Your task to perform on an android device: install app "Google Play services" Image 0: 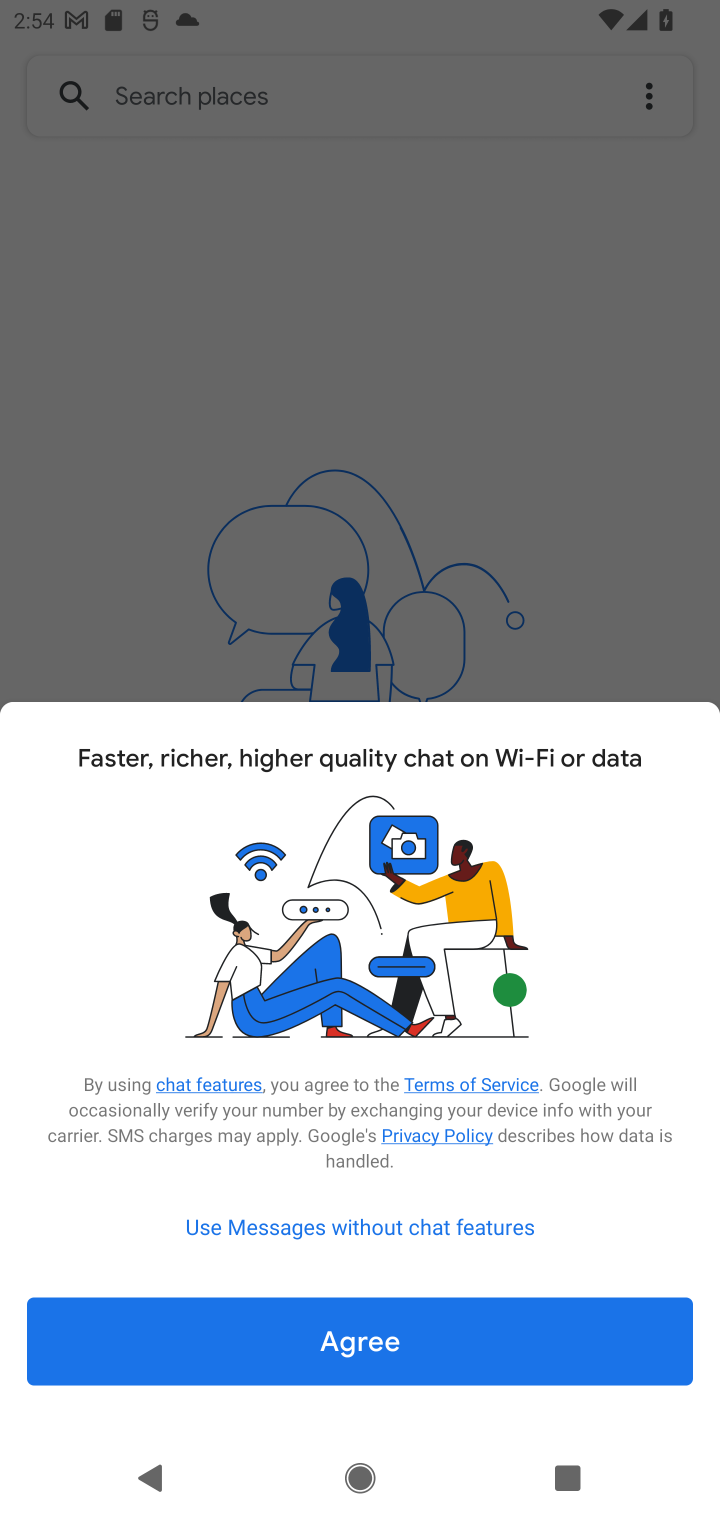
Step 0: press home button
Your task to perform on an android device: install app "Google Play services" Image 1: 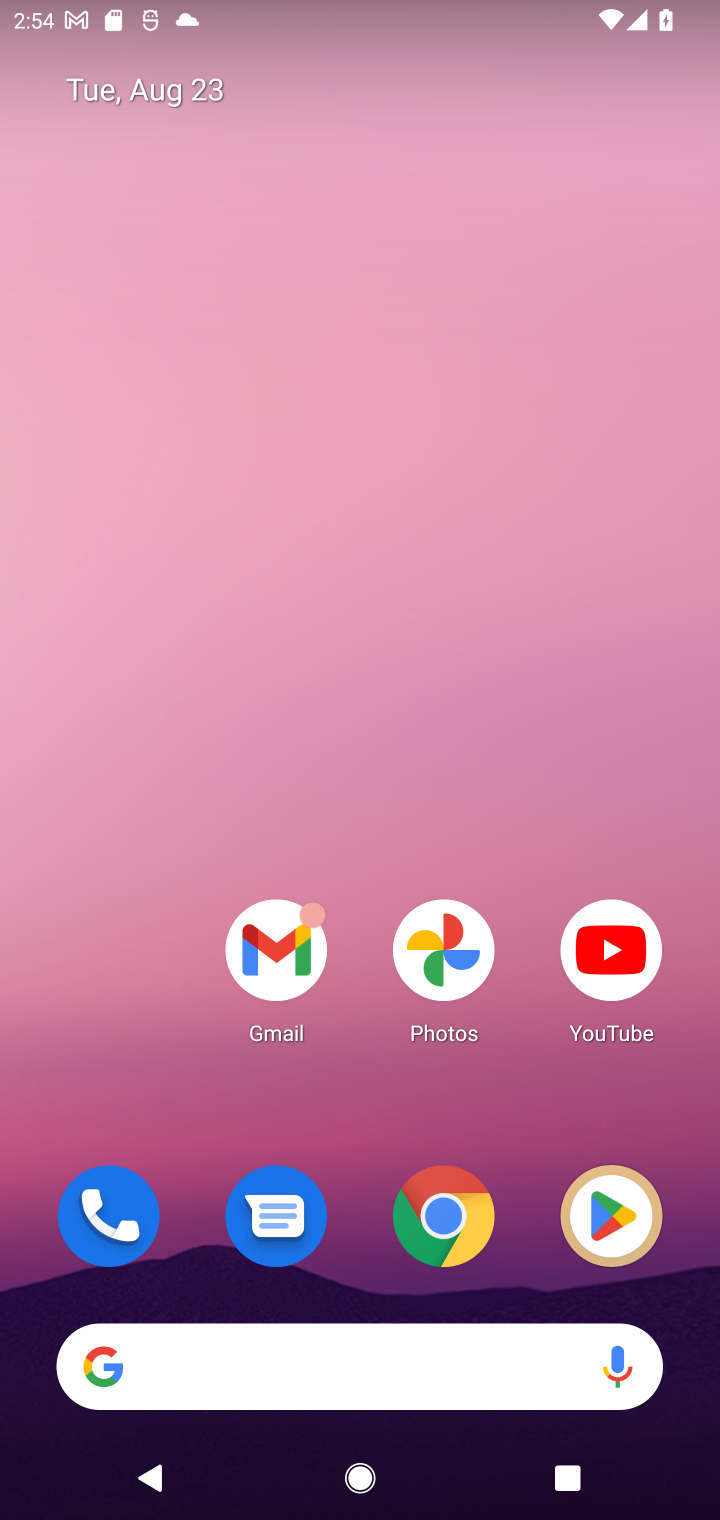
Step 1: drag from (298, 1305) to (342, 253)
Your task to perform on an android device: install app "Google Play services" Image 2: 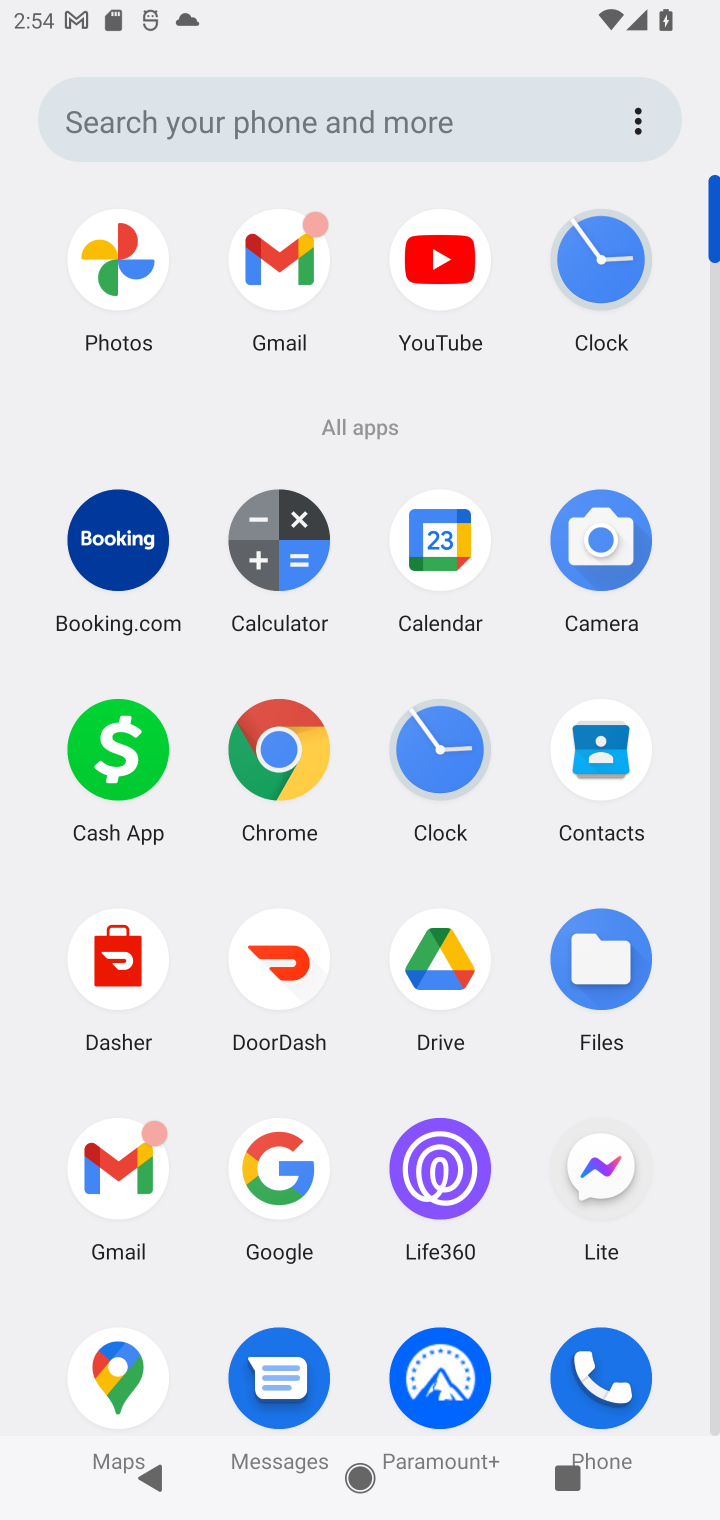
Step 2: drag from (309, 1203) to (419, 385)
Your task to perform on an android device: install app "Google Play services" Image 3: 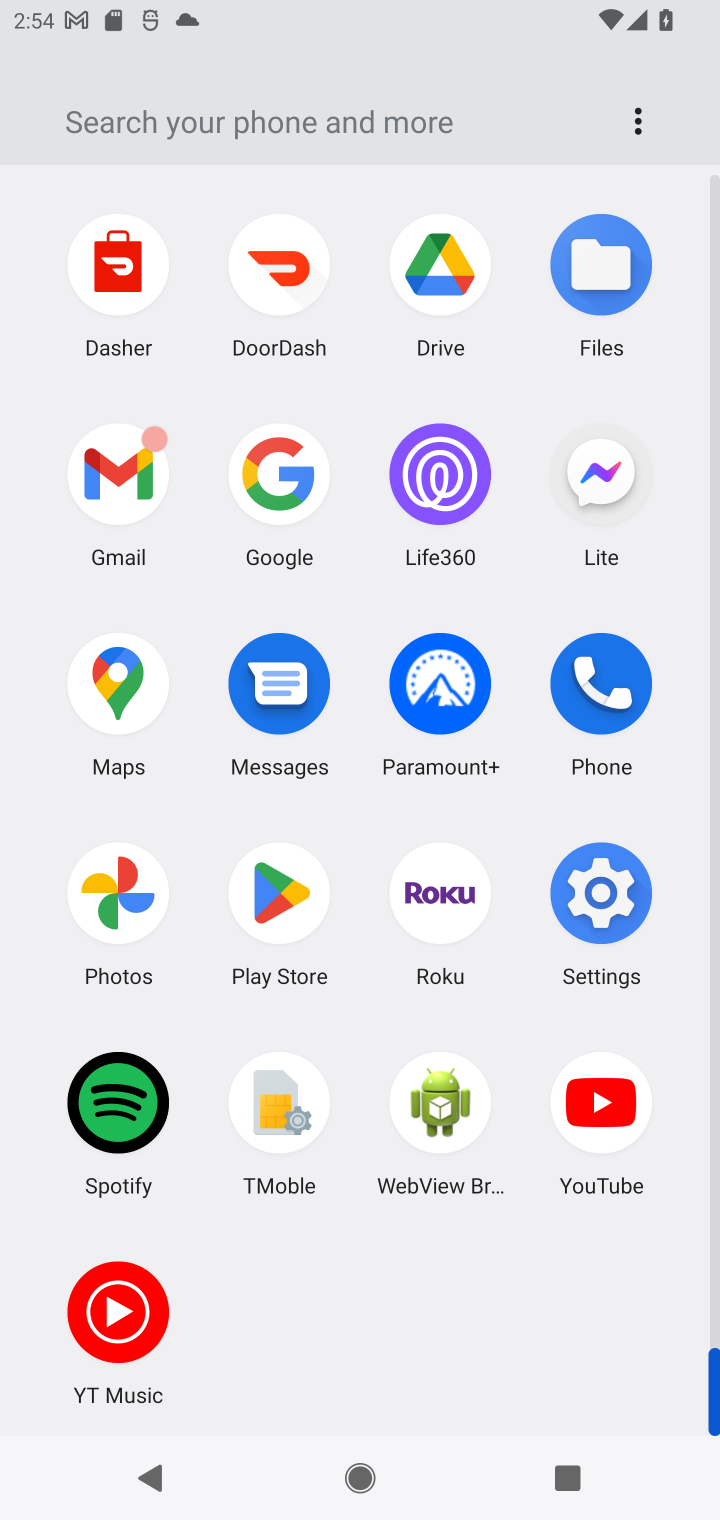
Step 3: click (276, 869)
Your task to perform on an android device: install app "Google Play services" Image 4: 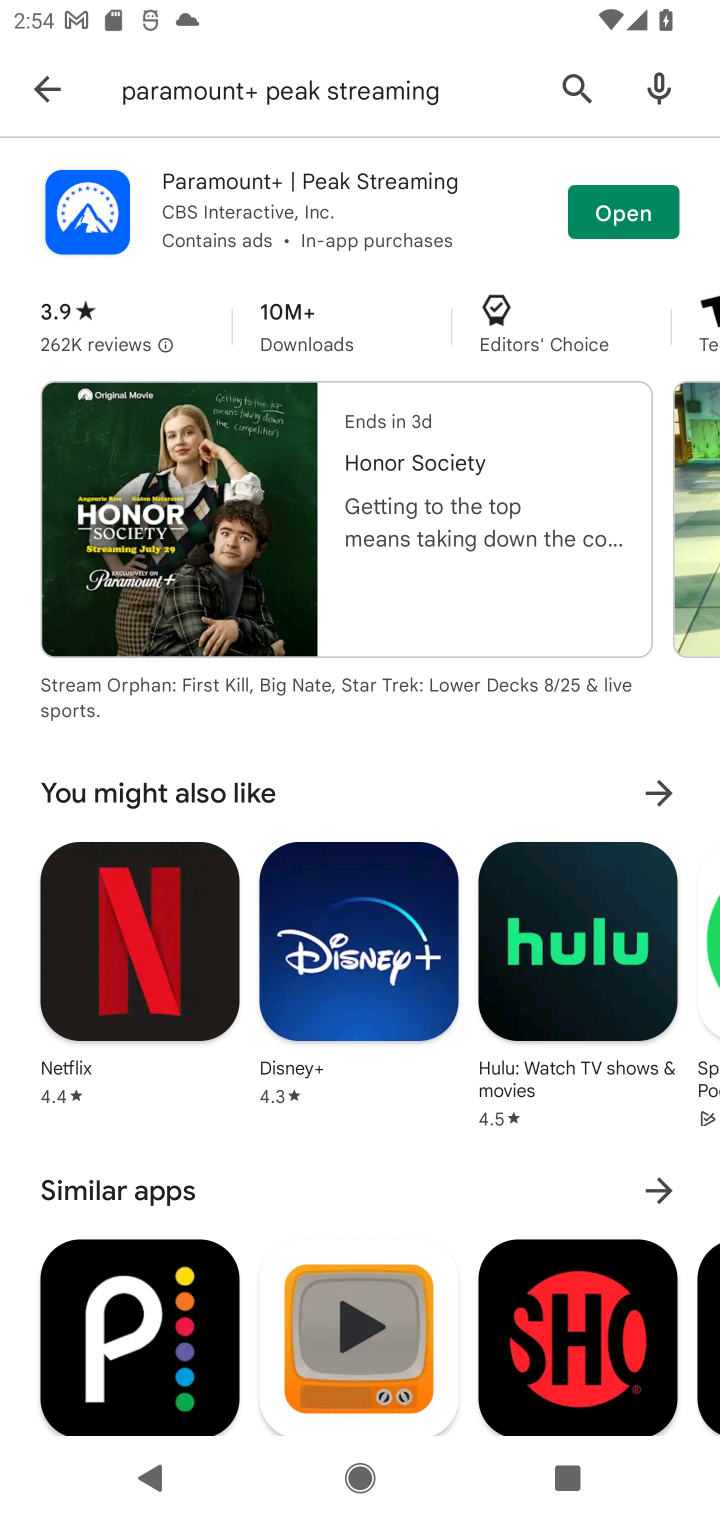
Step 4: click (53, 74)
Your task to perform on an android device: install app "Google Play services" Image 5: 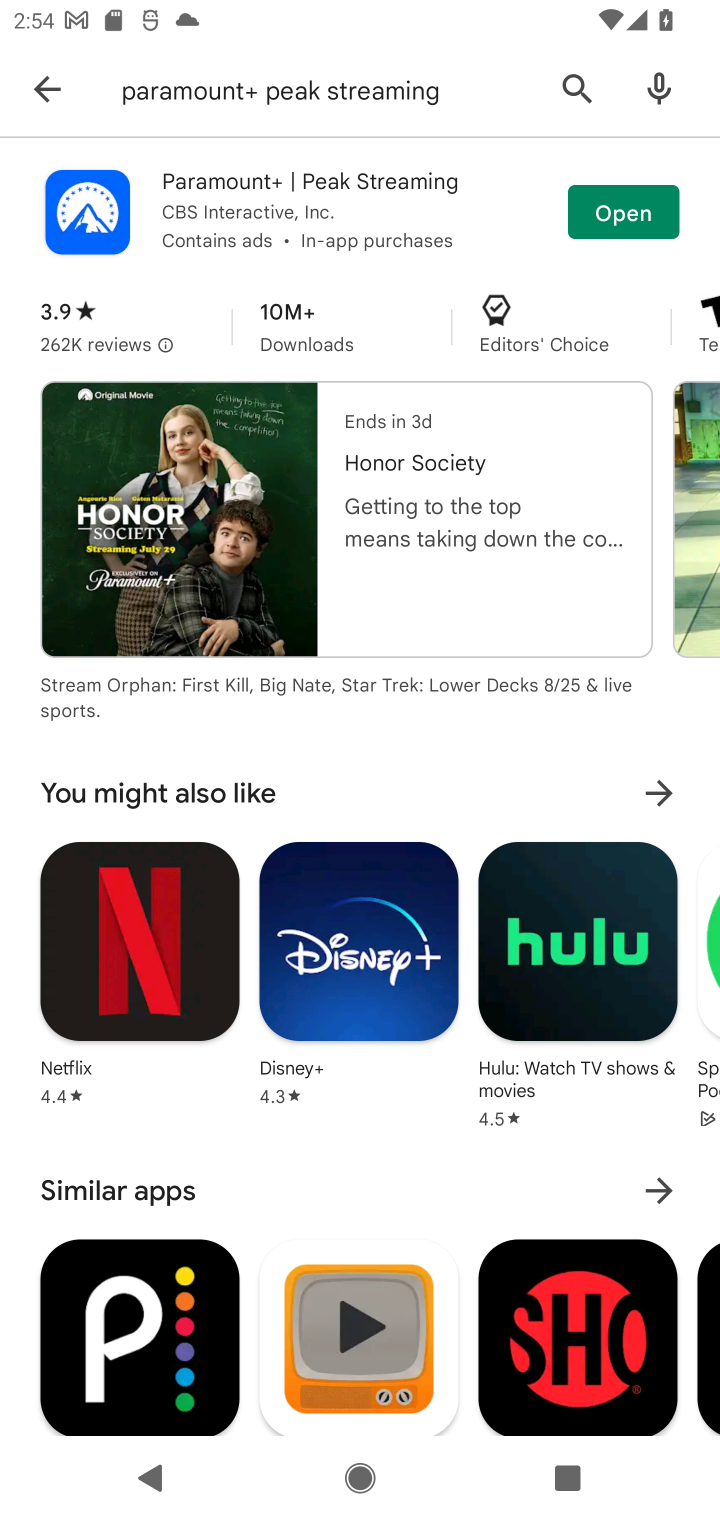
Step 5: click (55, 72)
Your task to perform on an android device: install app "Google Play services" Image 6: 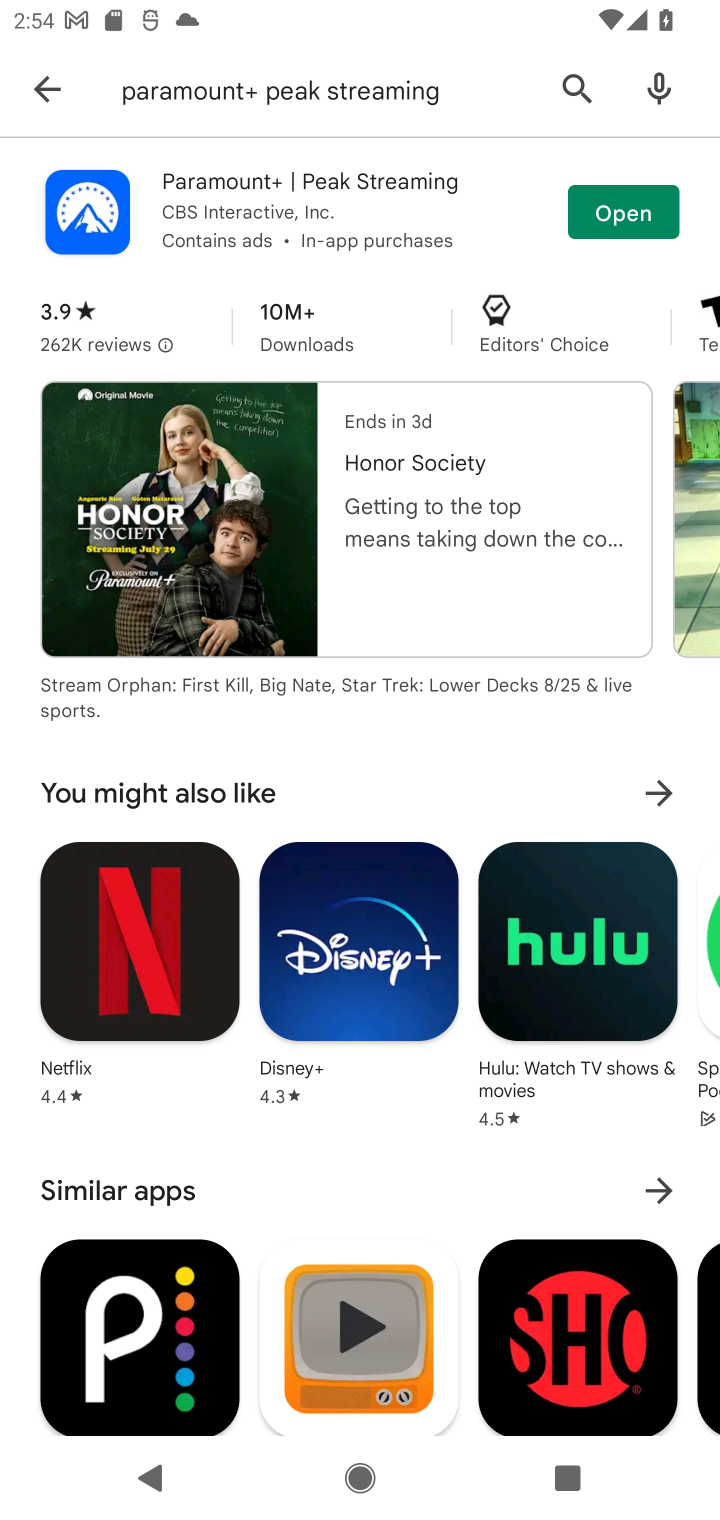
Step 6: click (39, 81)
Your task to perform on an android device: install app "Google Play services" Image 7: 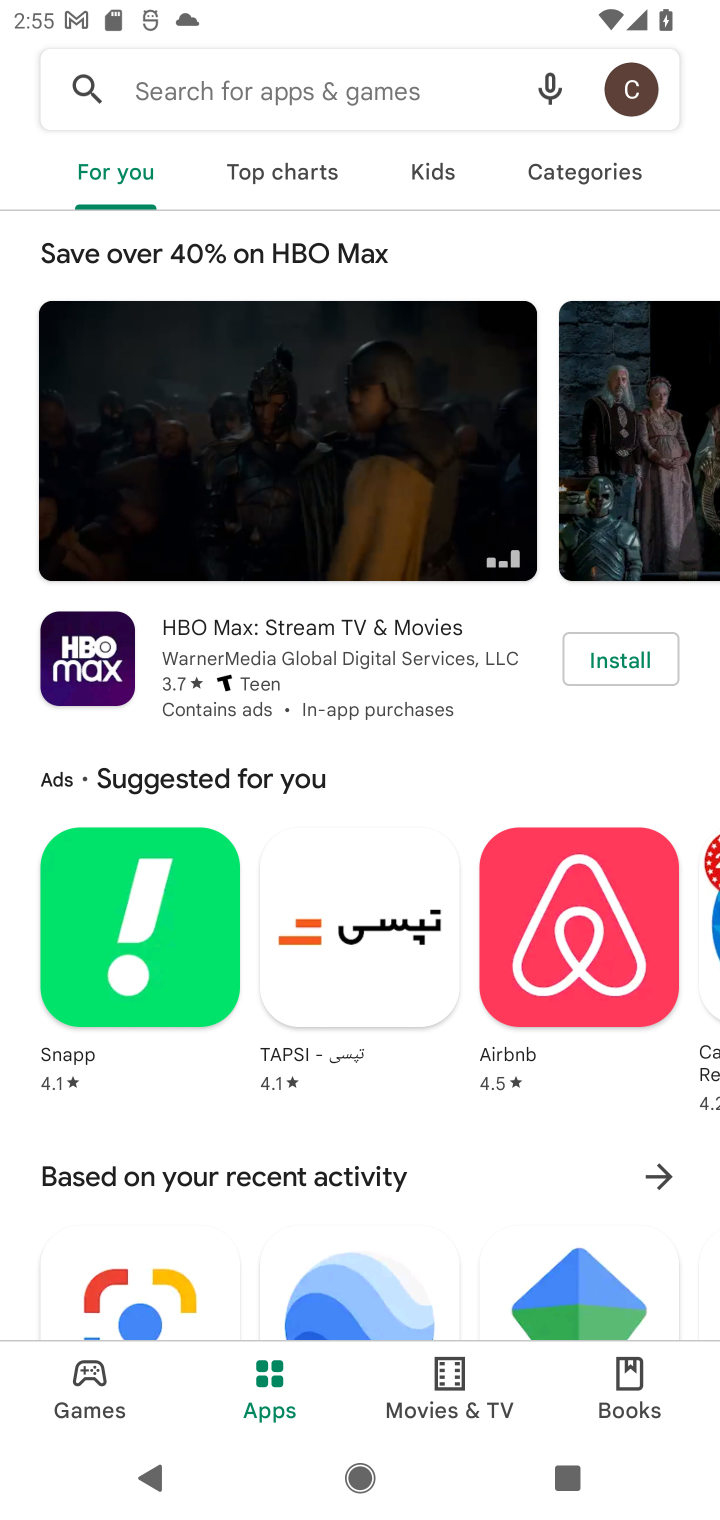
Step 7: click (318, 64)
Your task to perform on an android device: install app "Google Play services" Image 8: 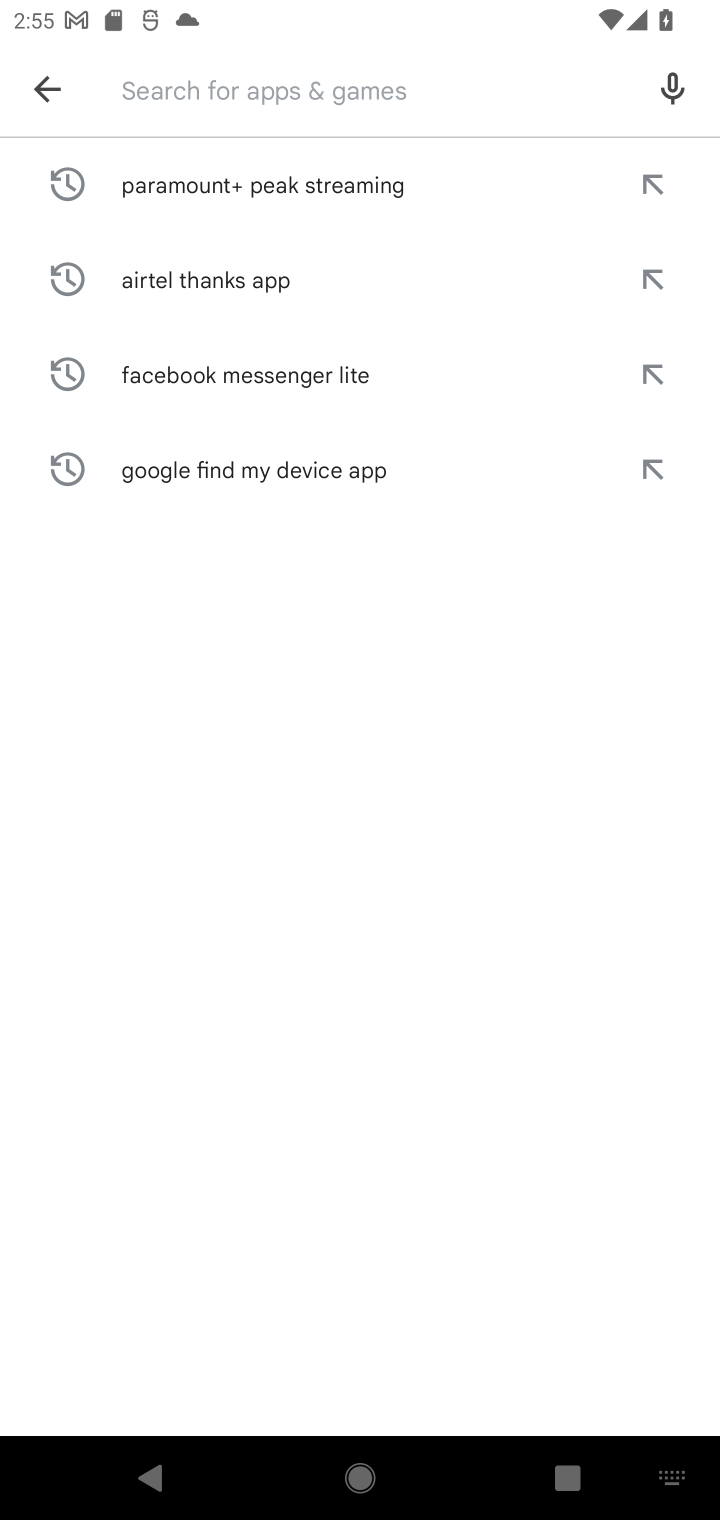
Step 8: type "Google Play services "
Your task to perform on an android device: install app "Google Play services" Image 9: 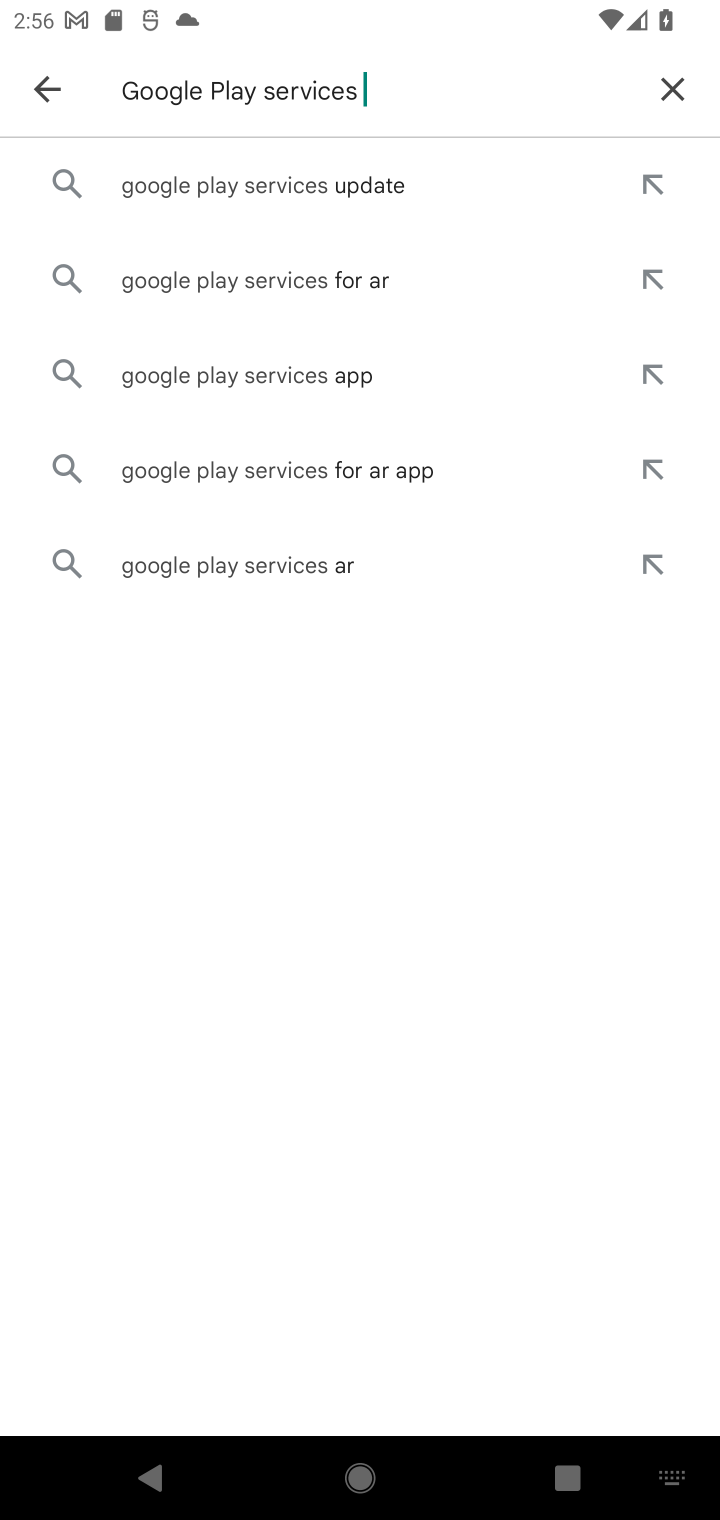
Step 9: click (205, 155)
Your task to perform on an android device: install app "Google Play services" Image 10: 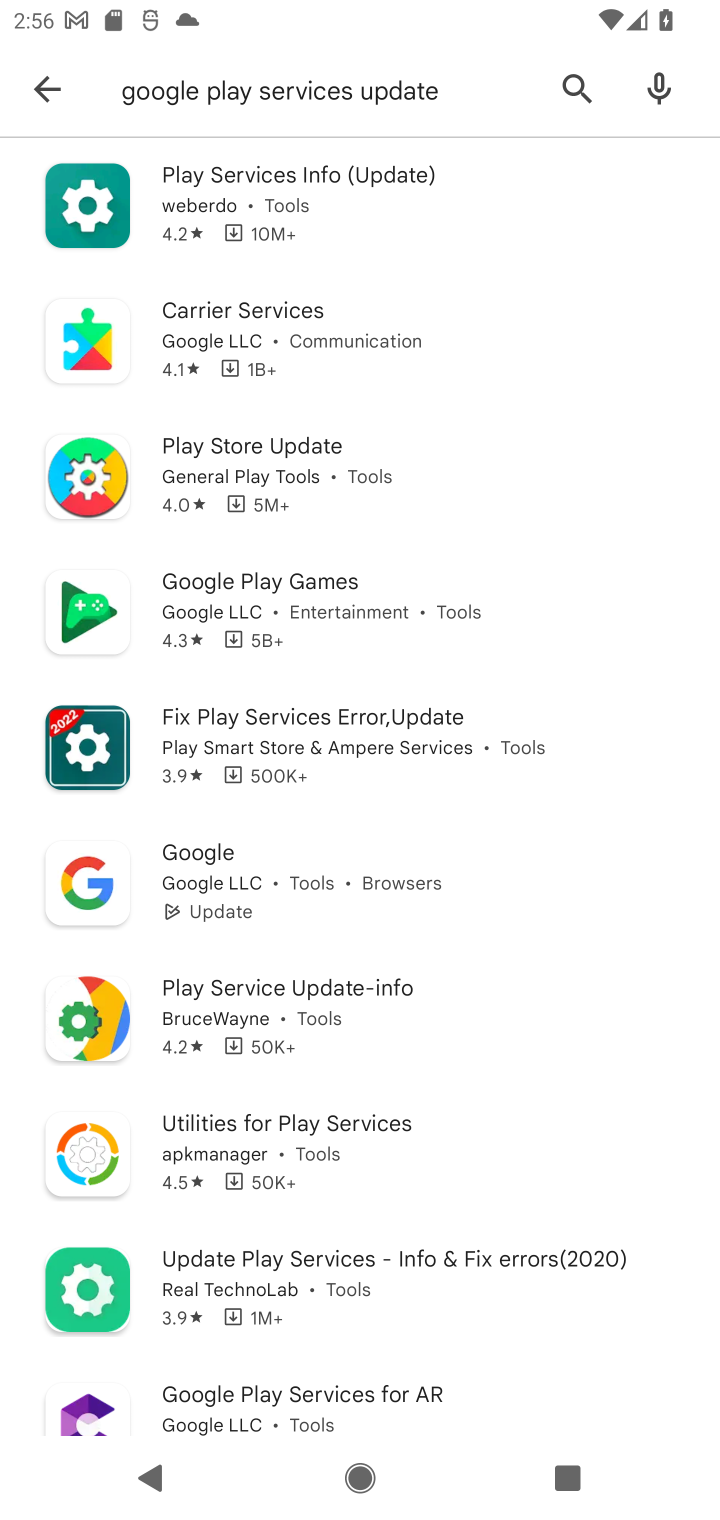
Step 10: click (355, 220)
Your task to perform on an android device: install app "Google Play services" Image 11: 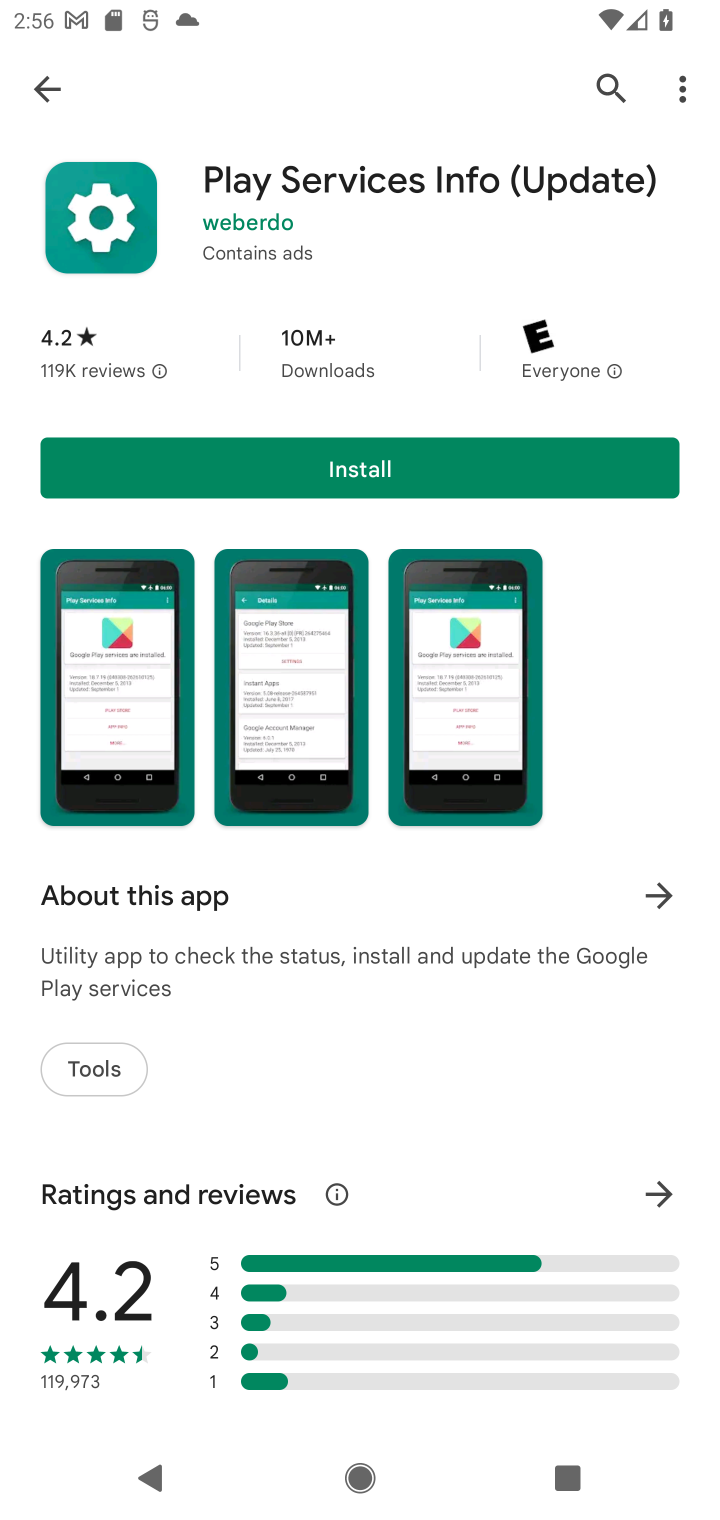
Step 11: click (13, 67)
Your task to perform on an android device: install app "Google Play services" Image 12: 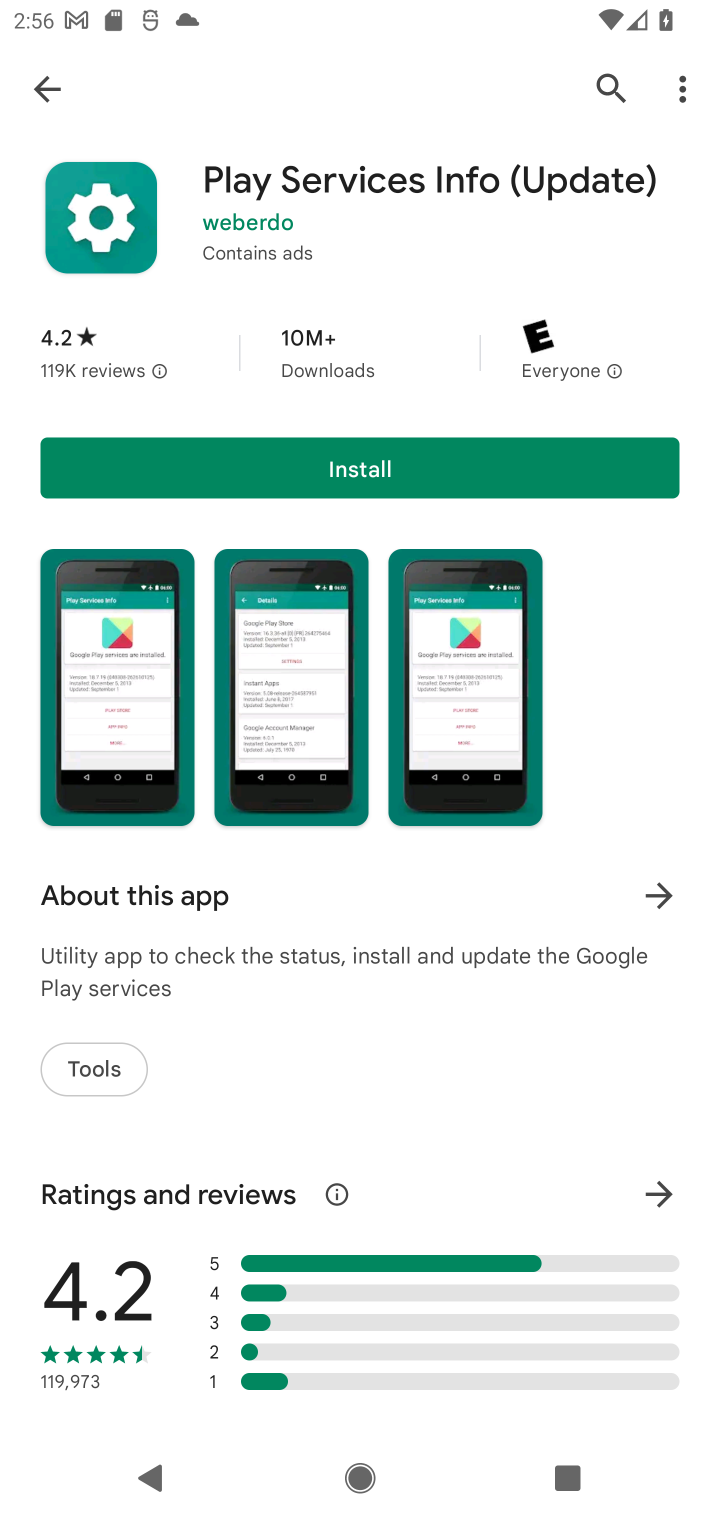
Step 12: click (44, 84)
Your task to perform on an android device: install app "Google Play services" Image 13: 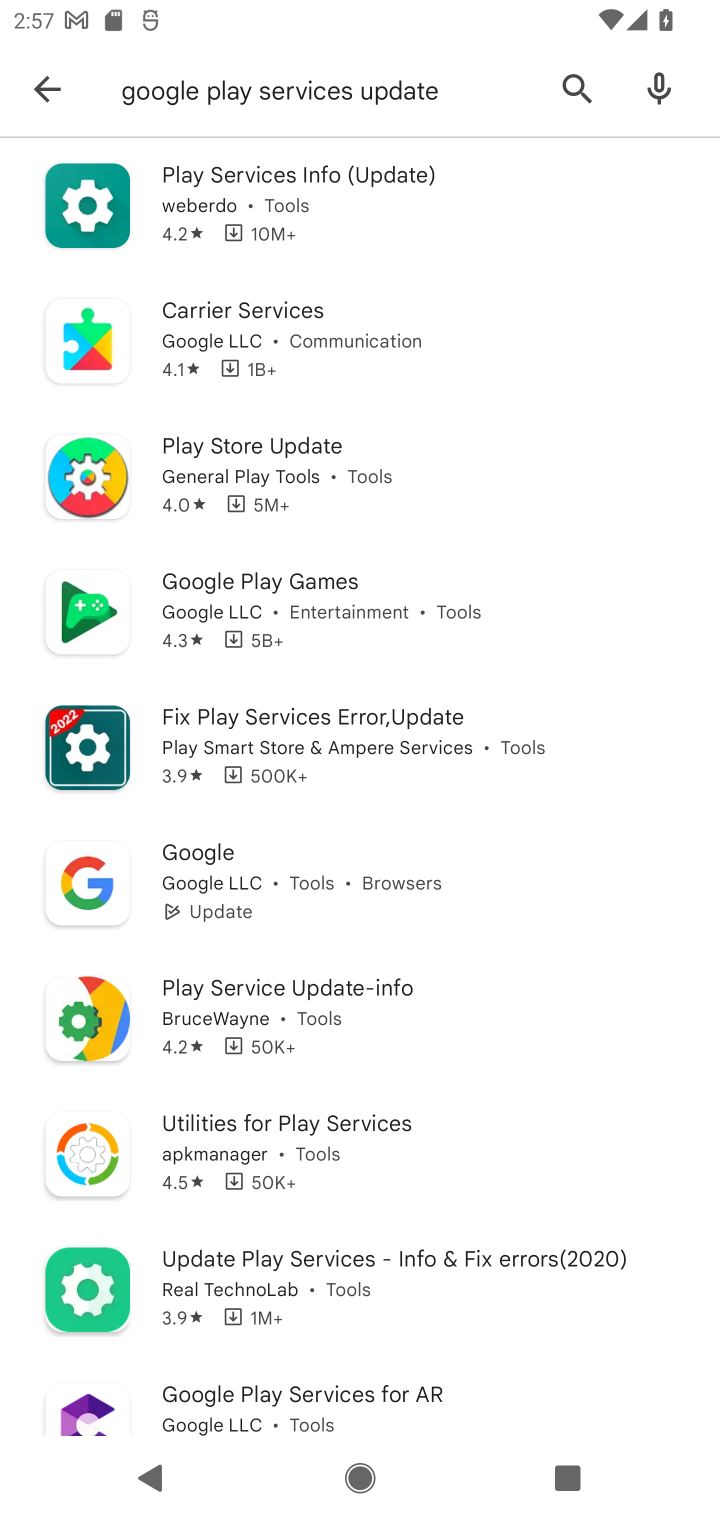
Step 13: task complete